Your task to perform on an android device: What is the news today? Image 0: 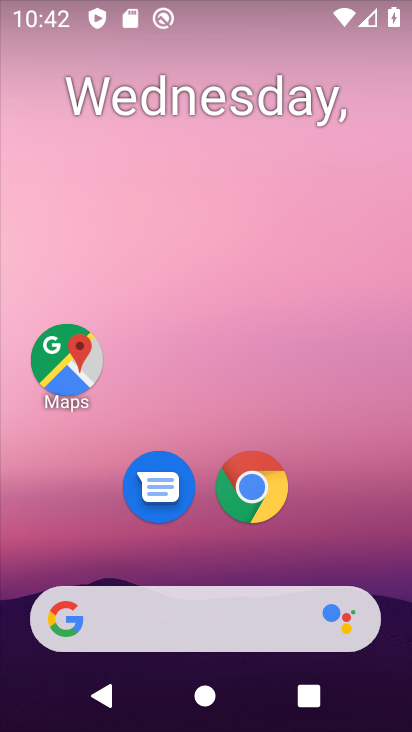
Step 0: drag from (4, 294) to (409, 362)
Your task to perform on an android device: What is the news today? Image 1: 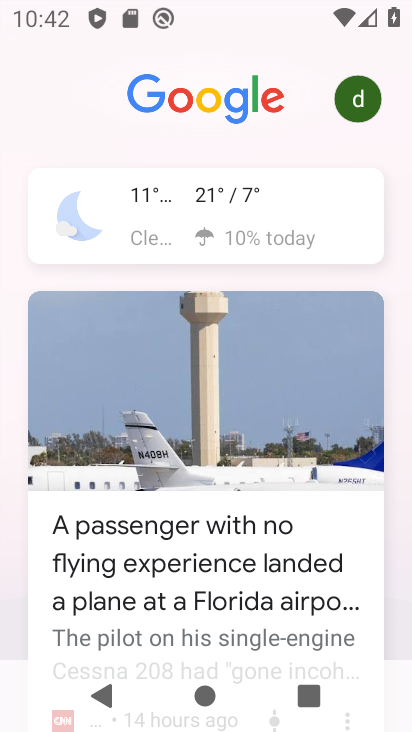
Step 1: task complete